Your task to perform on an android device: Go to Amazon Image 0: 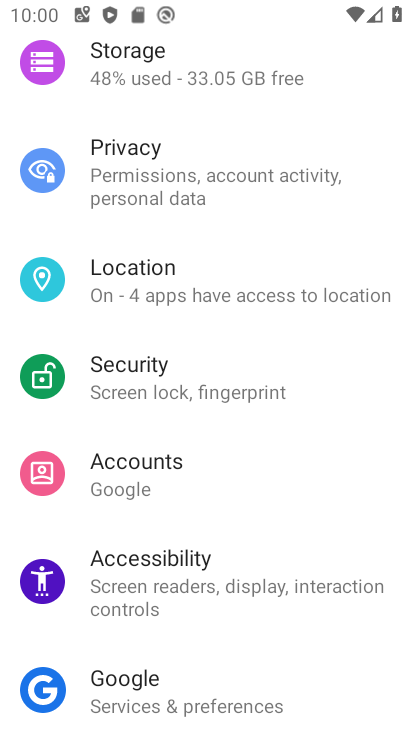
Step 0: press home button
Your task to perform on an android device: Go to Amazon Image 1: 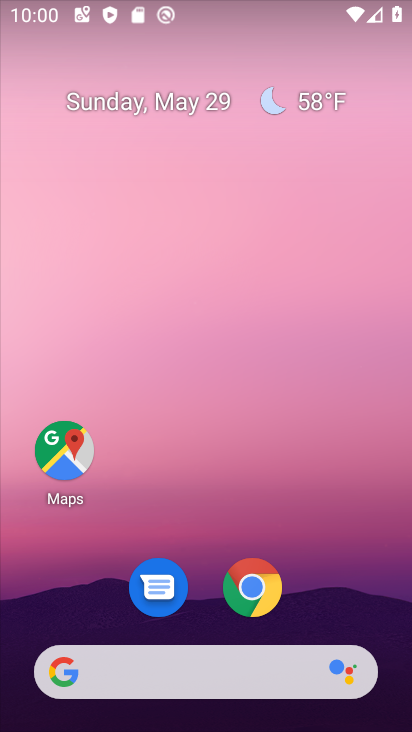
Step 1: click (240, 594)
Your task to perform on an android device: Go to Amazon Image 2: 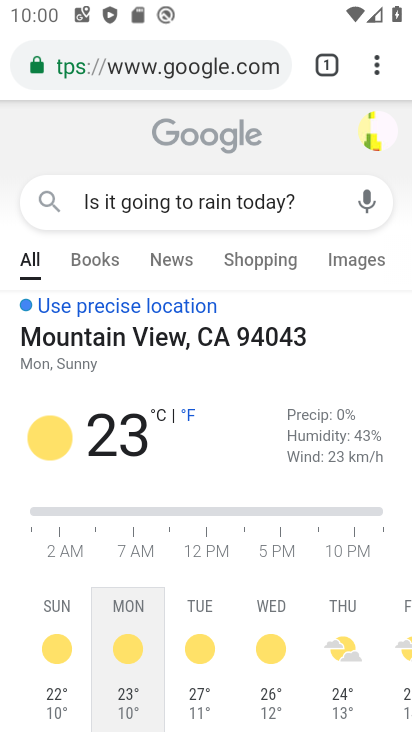
Step 2: click (335, 62)
Your task to perform on an android device: Go to Amazon Image 3: 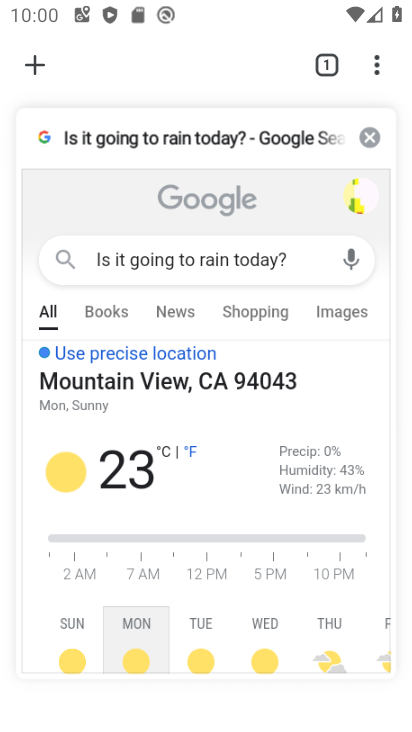
Step 3: click (31, 66)
Your task to perform on an android device: Go to Amazon Image 4: 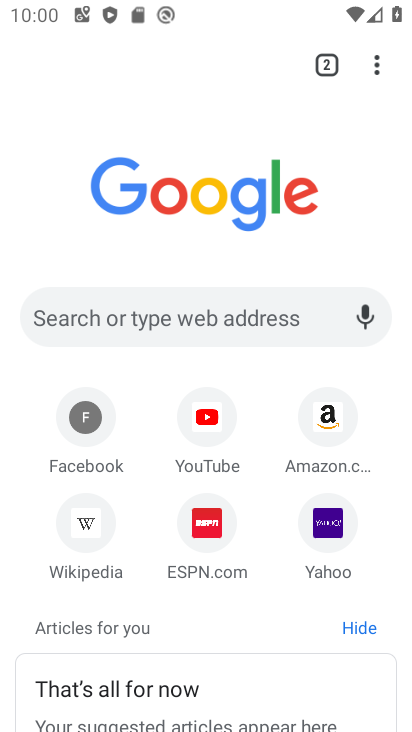
Step 4: click (313, 437)
Your task to perform on an android device: Go to Amazon Image 5: 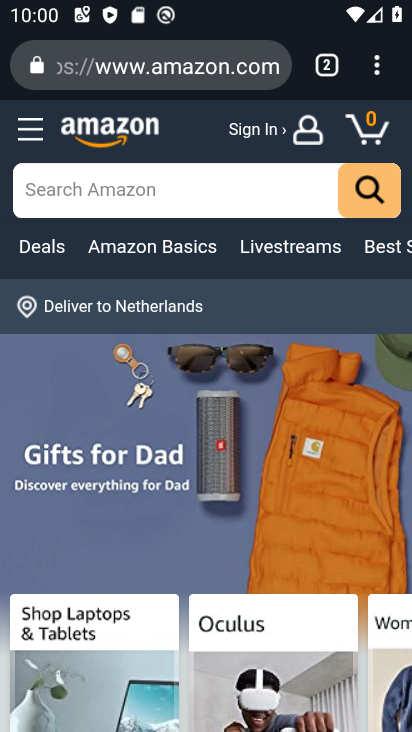
Step 5: task complete